Your task to perform on an android device: Clear the shopping cart on newegg.com. Image 0: 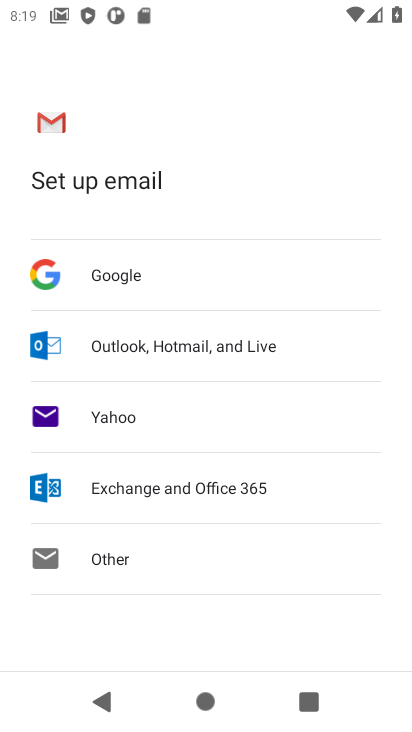
Step 0: press home button
Your task to perform on an android device: Clear the shopping cart on newegg.com. Image 1: 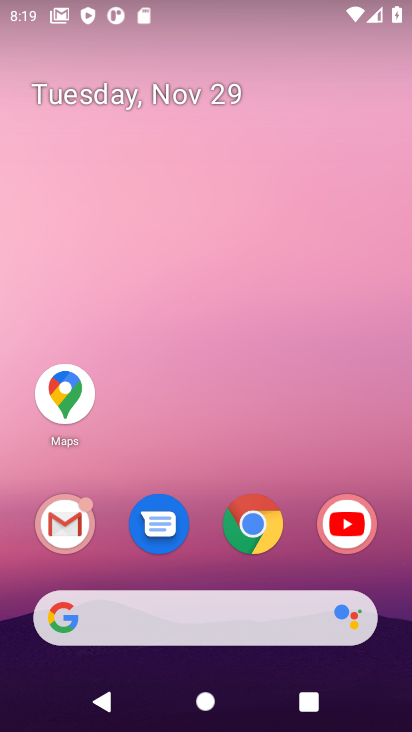
Step 1: click (261, 532)
Your task to perform on an android device: Clear the shopping cart on newegg.com. Image 2: 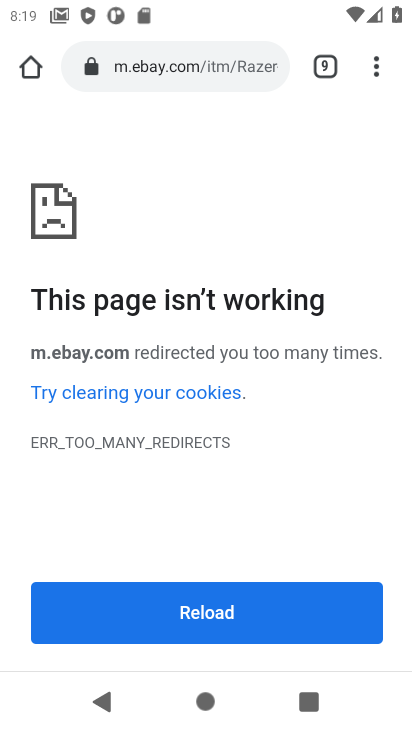
Step 2: click (176, 70)
Your task to perform on an android device: Clear the shopping cart on newegg.com. Image 3: 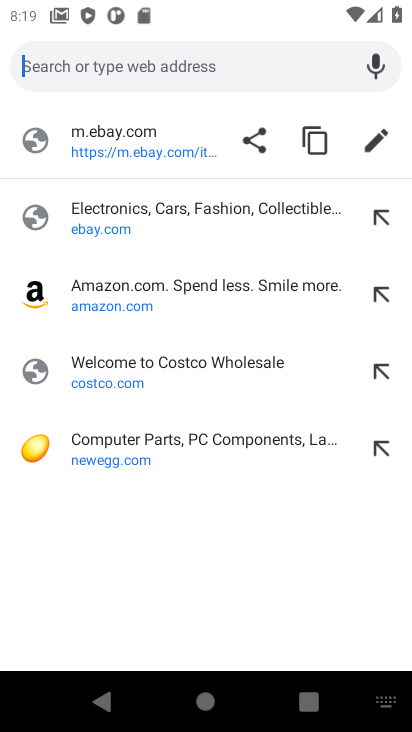
Step 3: click (98, 442)
Your task to perform on an android device: Clear the shopping cart on newegg.com. Image 4: 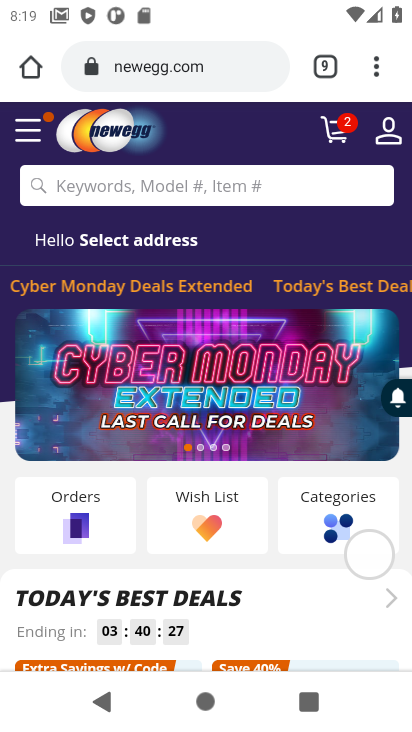
Step 4: click (340, 125)
Your task to perform on an android device: Clear the shopping cart on newegg.com. Image 5: 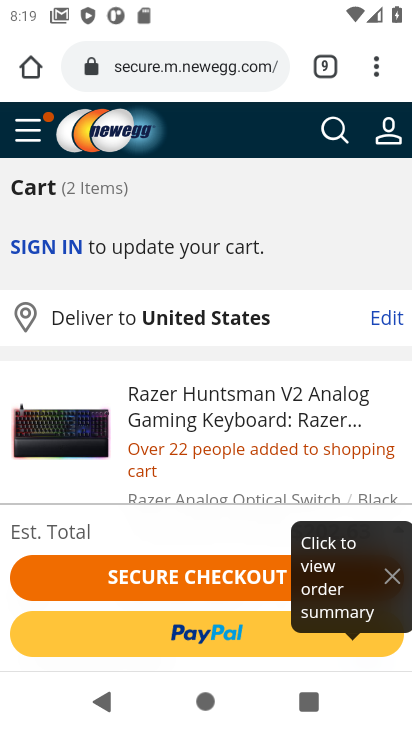
Step 5: drag from (267, 432) to (276, 175)
Your task to perform on an android device: Clear the shopping cart on newegg.com. Image 6: 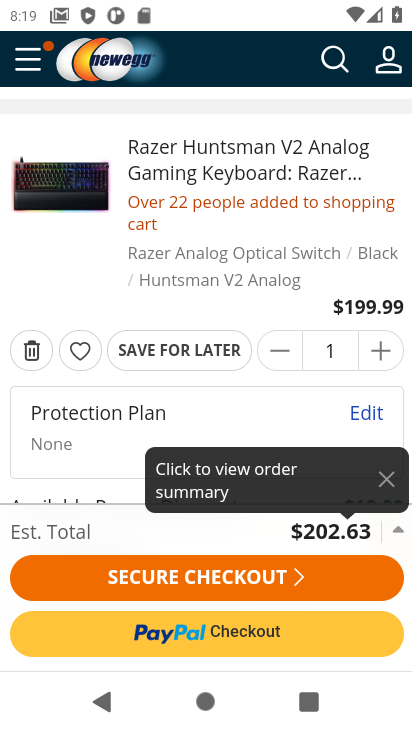
Step 6: click (23, 349)
Your task to perform on an android device: Clear the shopping cart on newegg.com. Image 7: 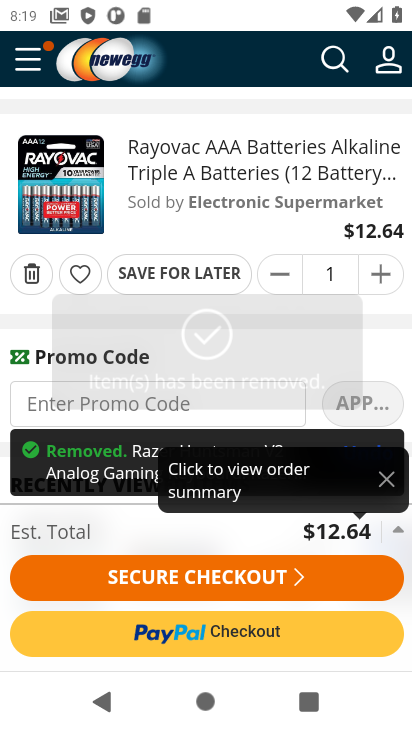
Step 7: click (24, 272)
Your task to perform on an android device: Clear the shopping cart on newegg.com. Image 8: 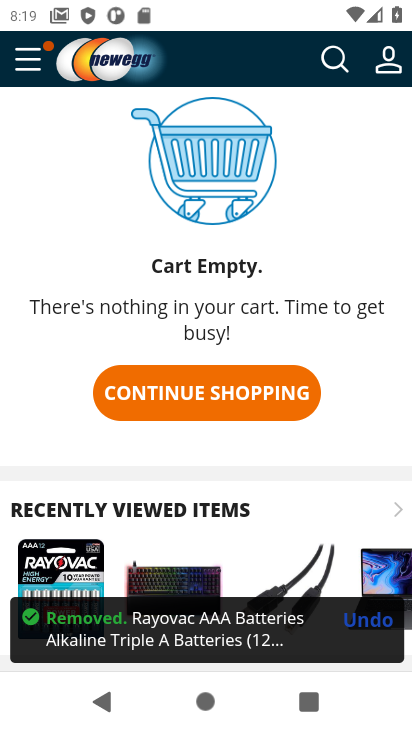
Step 8: task complete